Your task to perform on an android device: Open Youtube and go to the subscriptions tab Image 0: 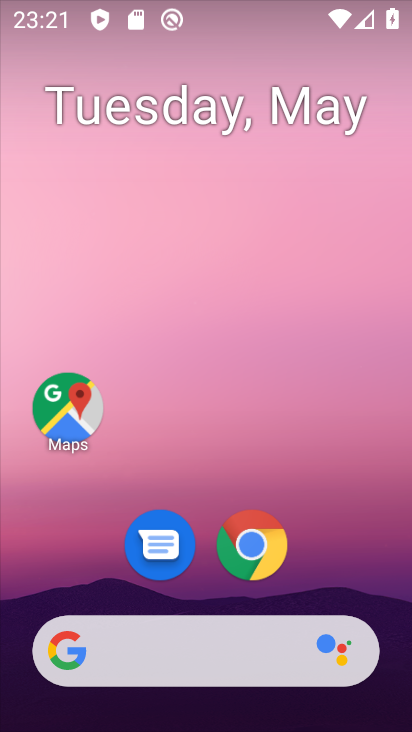
Step 0: drag from (204, 594) to (206, 191)
Your task to perform on an android device: Open Youtube and go to the subscriptions tab Image 1: 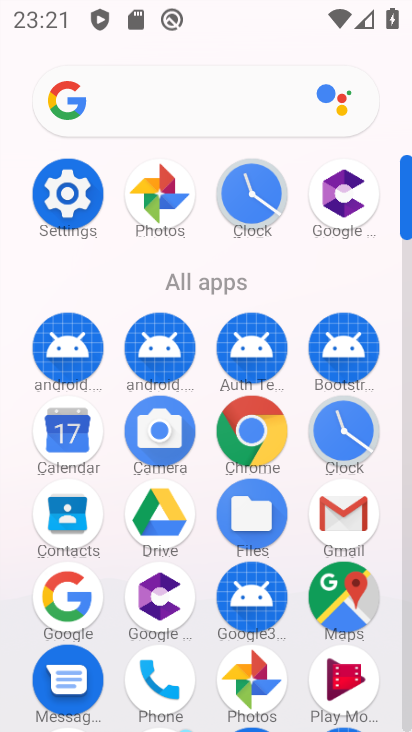
Step 1: drag from (211, 656) to (241, 298)
Your task to perform on an android device: Open Youtube and go to the subscriptions tab Image 2: 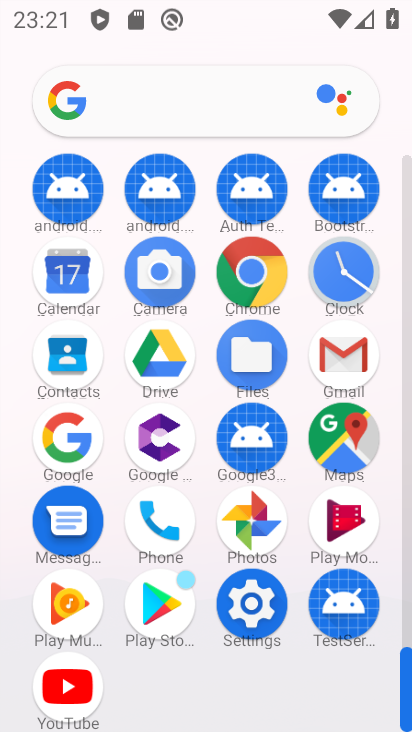
Step 2: click (73, 685)
Your task to perform on an android device: Open Youtube and go to the subscriptions tab Image 3: 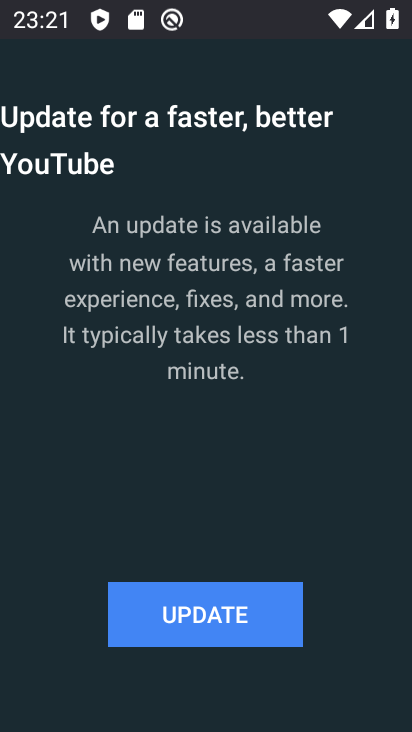
Step 3: click (170, 637)
Your task to perform on an android device: Open Youtube and go to the subscriptions tab Image 4: 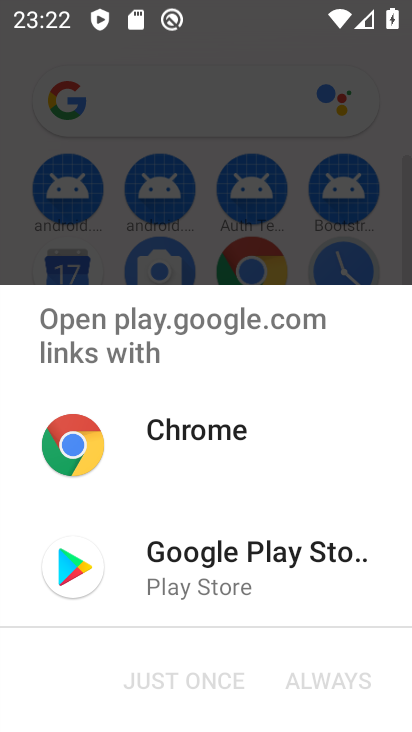
Step 4: click (197, 578)
Your task to perform on an android device: Open Youtube and go to the subscriptions tab Image 5: 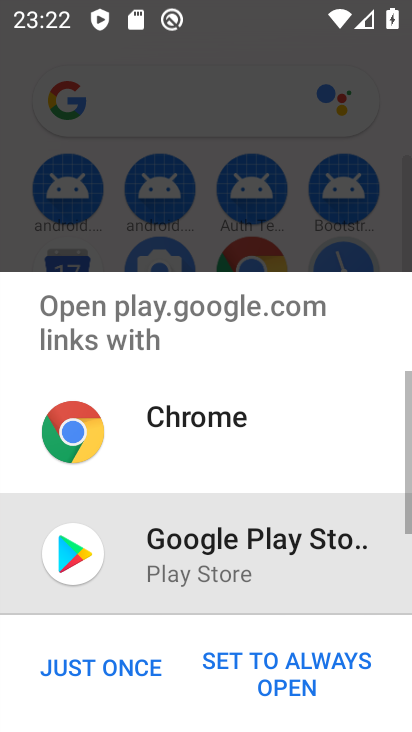
Step 5: click (81, 668)
Your task to perform on an android device: Open Youtube and go to the subscriptions tab Image 6: 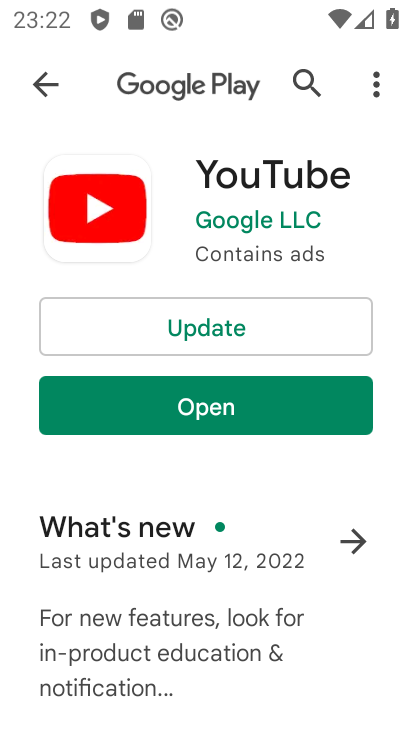
Step 6: click (212, 326)
Your task to perform on an android device: Open Youtube and go to the subscriptions tab Image 7: 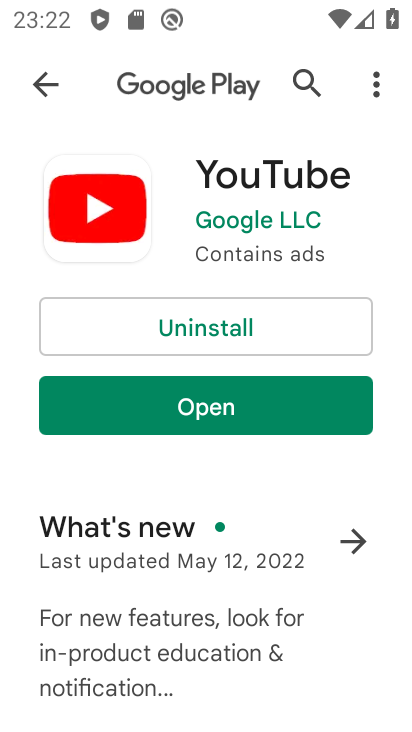
Step 7: click (229, 414)
Your task to perform on an android device: Open Youtube and go to the subscriptions tab Image 8: 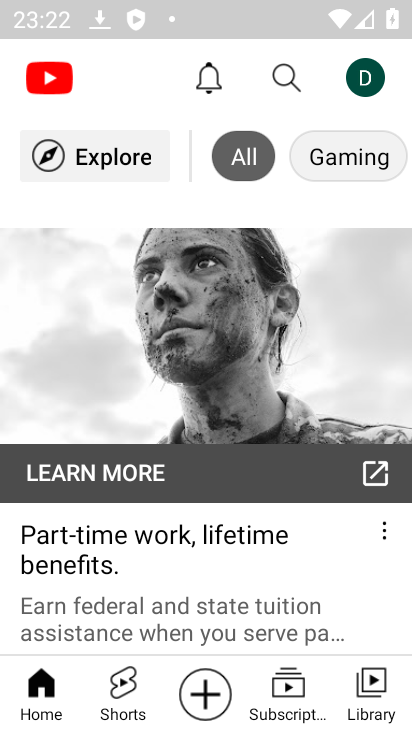
Step 8: click (288, 704)
Your task to perform on an android device: Open Youtube and go to the subscriptions tab Image 9: 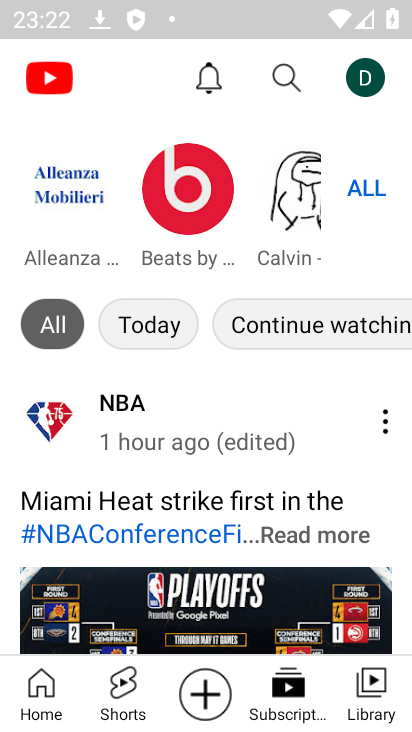
Step 9: task complete